Your task to perform on an android device: turn off notifications in google photos Image 0: 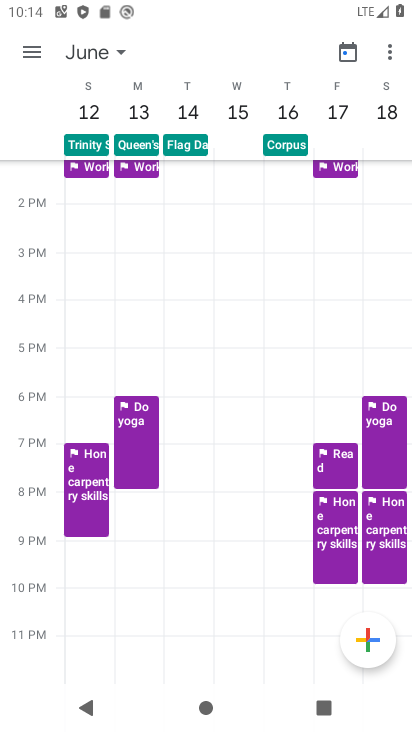
Step 0: press home button
Your task to perform on an android device: turn off notifications in google photos Image 1: 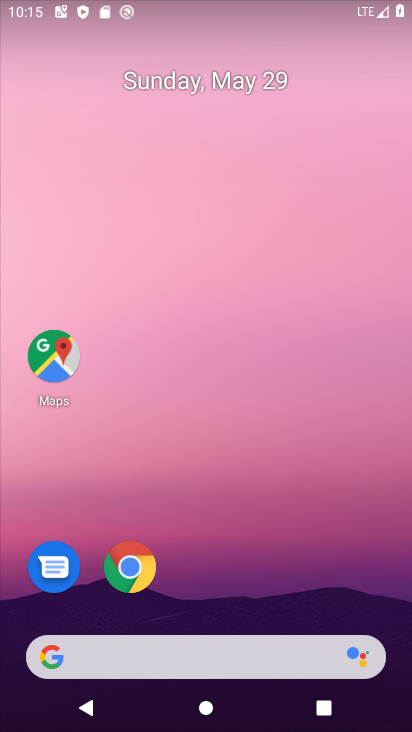
Step 1: drag from (386, 614) to (293, 129)
Your task to perform on an android device: turn off notifications in google photos Image 2: 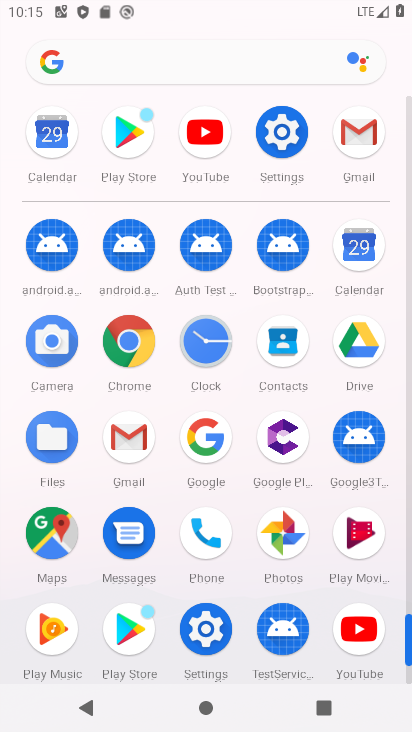
Step 2: click (282, 533)
Your task to perform on an android device: turn off notifications in google photos Image 3: 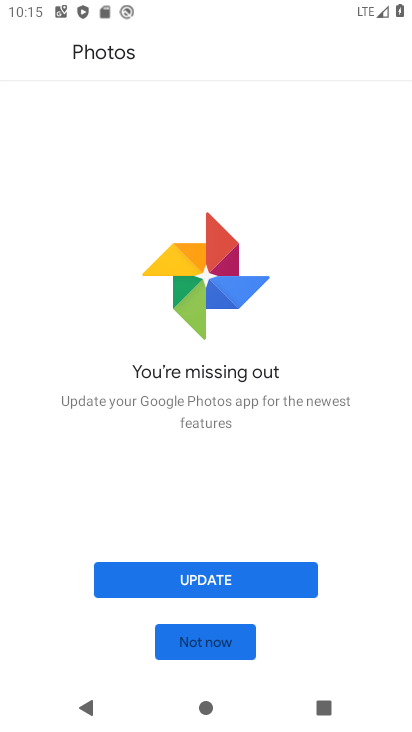
Step 3: click (199, 583)
Your task to perform on an android device: turn off notifications in google photos Image 4: 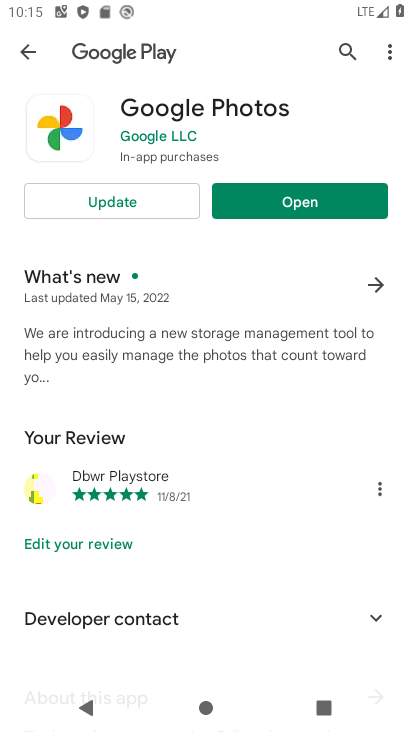
Step 4: click (115, 197)
Your task to perform on an android device: turn off notifications in google photos Image 5: 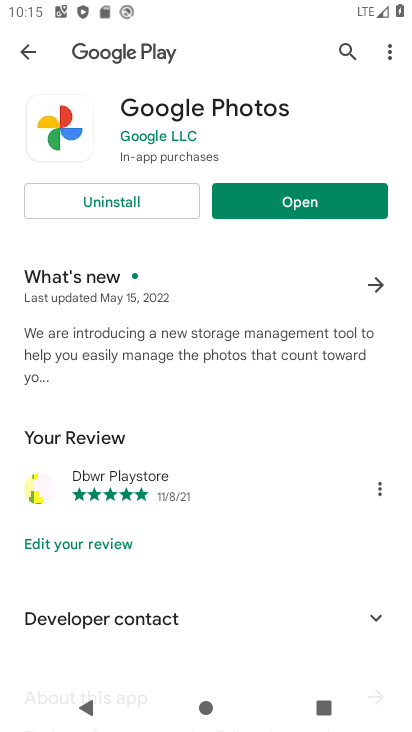
Step 5: click (306, 198)
Your task to perform on an android device: turn off notifications in google photos Image 6: 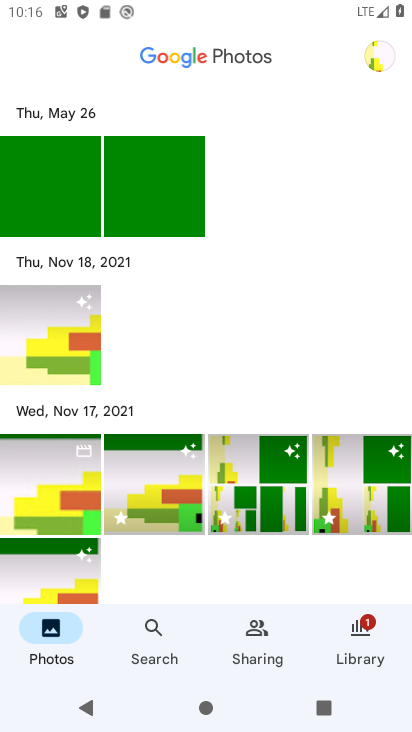
Step 6: click (384, 58)
Your task to perform on an android device: turn off notifications in google photos Image 7: 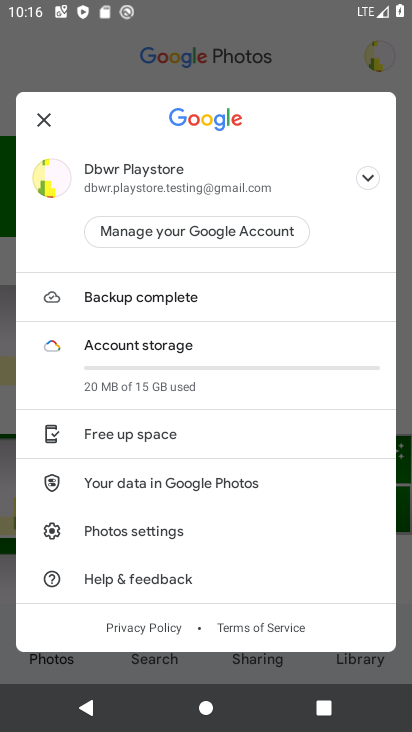
Step 7: click (141, 528)
Your task to perform on an android device: turn off notifications in google photos Image 8: 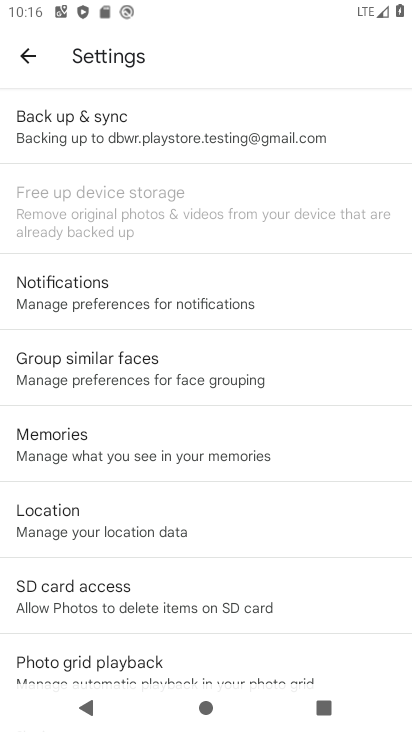
Step 8: click (68, 278)
Your task to perform on an android device: turn off notifications in google photos Image 9: 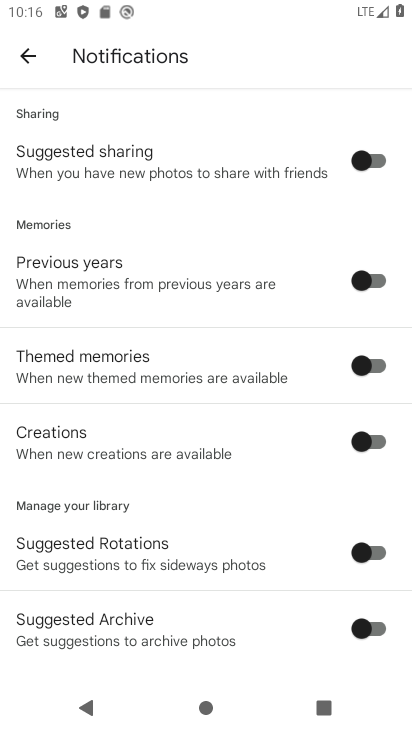
Step 9: drag from (132, 576) to (117, 99)
Your task to perform on an android device: turn off notifications in google photos Image 10: 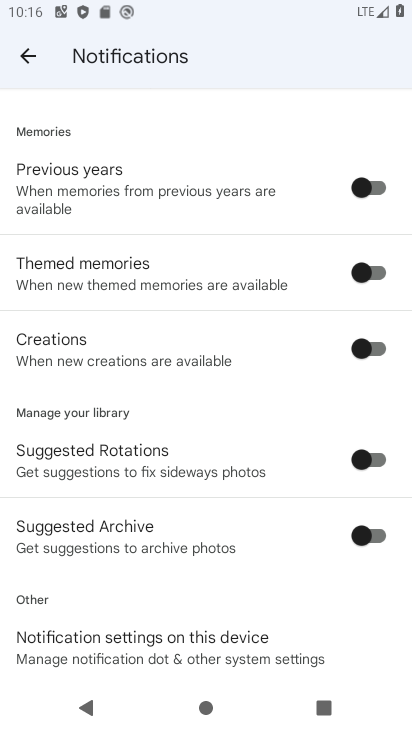
Step 10: click (155, 639)
Your task to perform on an android device: turn off notifications in google photos Image 11: 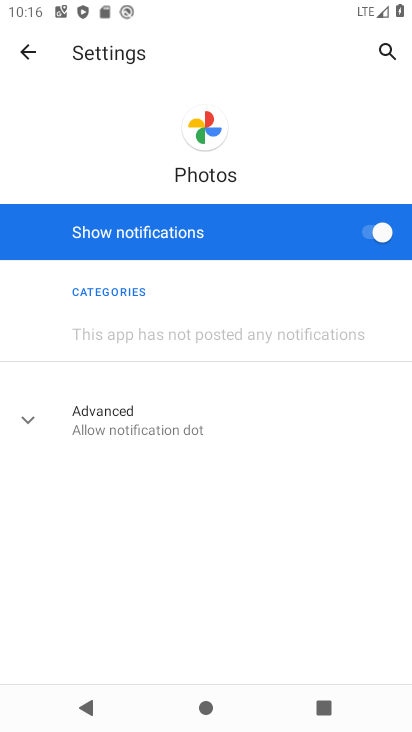
Step 11: click (365, 229)
Your task to perform on an android device: turn off notifications in google photos Image 12: 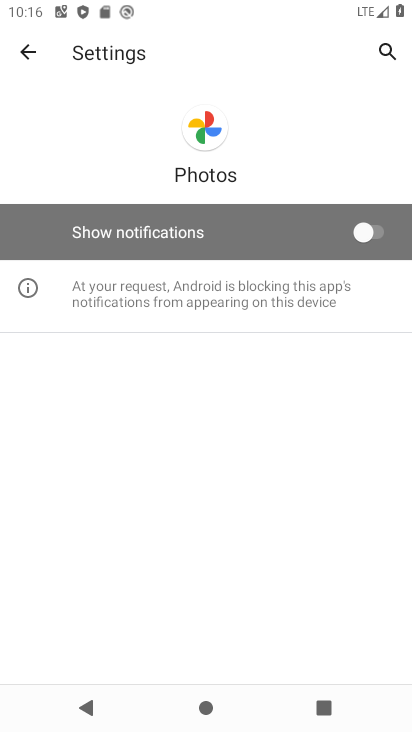
Step 12: task complete